Your task to perform on an android device: uninstall "Pluto TV - Live TV and Movies" Image 0: 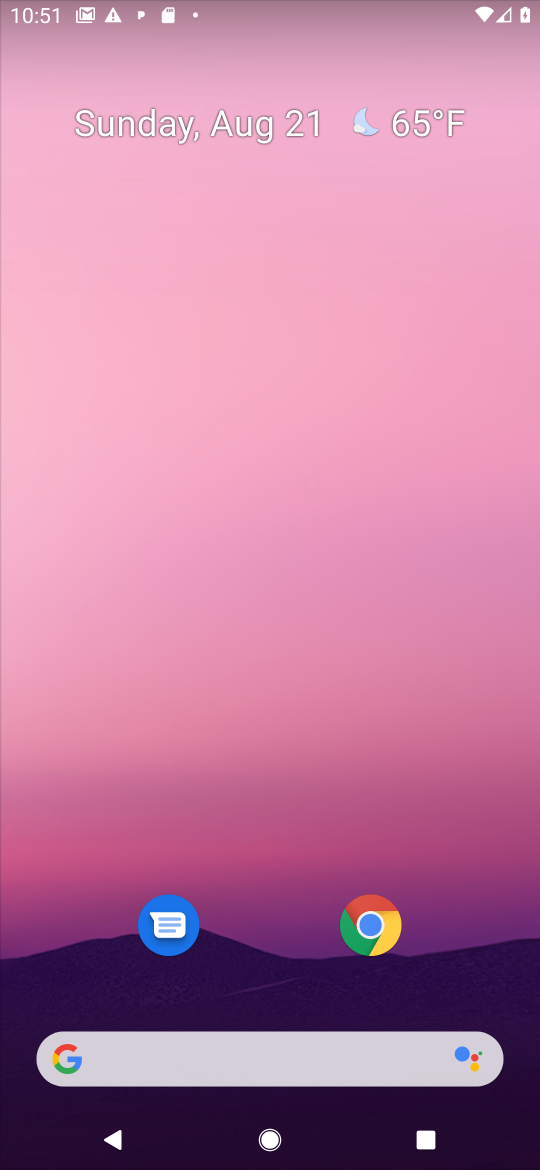
Step 0: drag from (321, 865) to (464, 174)
Your task to perform on an android device: uninstall "Pluto TV - Live TV and Movies" Image 1: 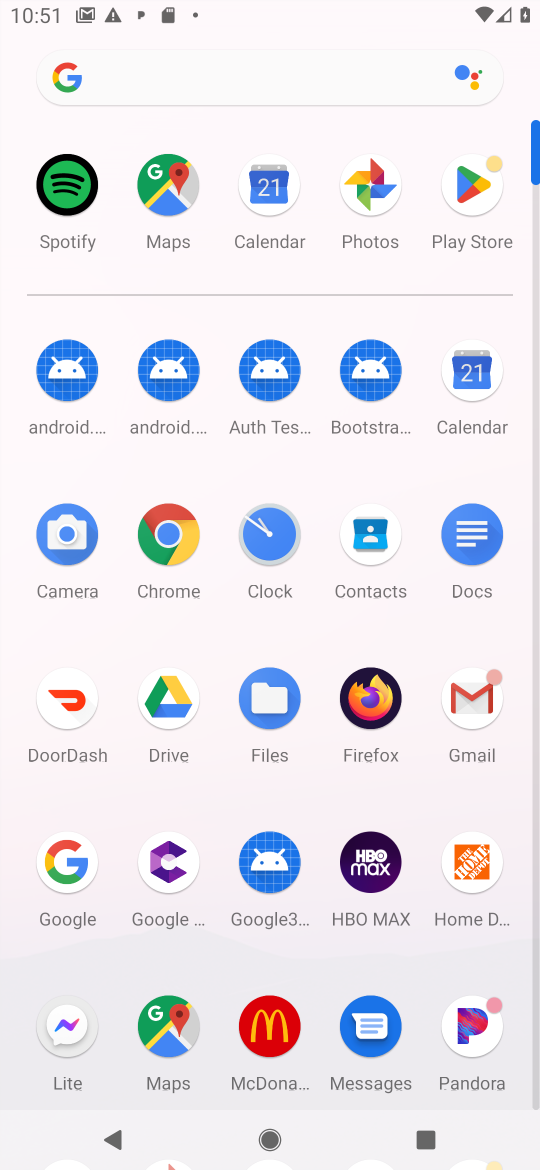
Step 1: click (463, 175)
Your task to perform on an android device: uninstall "Pluto TV - Live TV and Movies" Image 2: 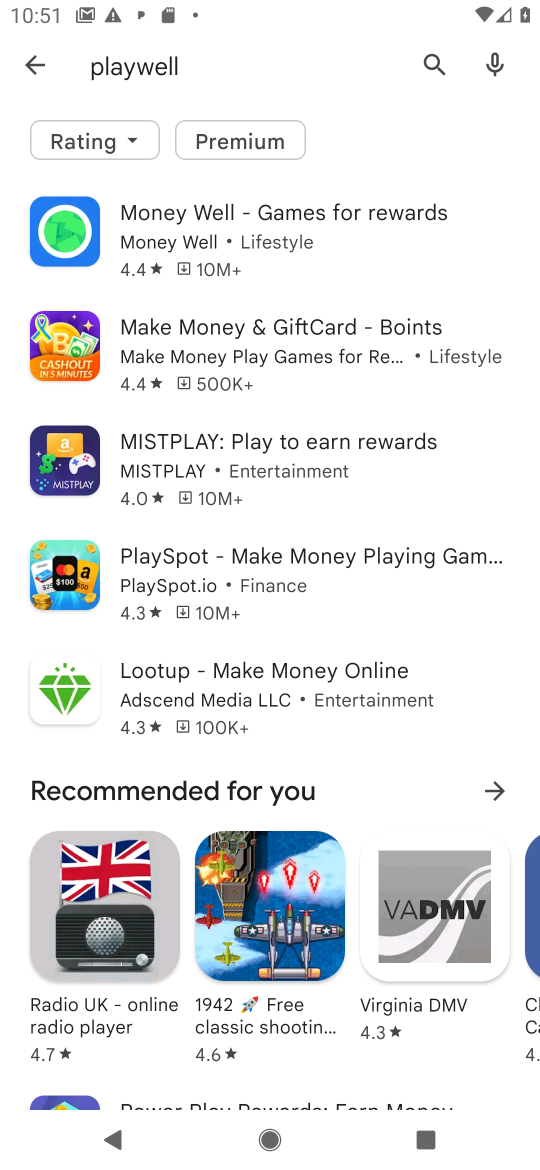
Step 2: click (444, 41)
Your task to perform on an android device: uninstall "Pluto TV - Live TV and Movies" Image 3: 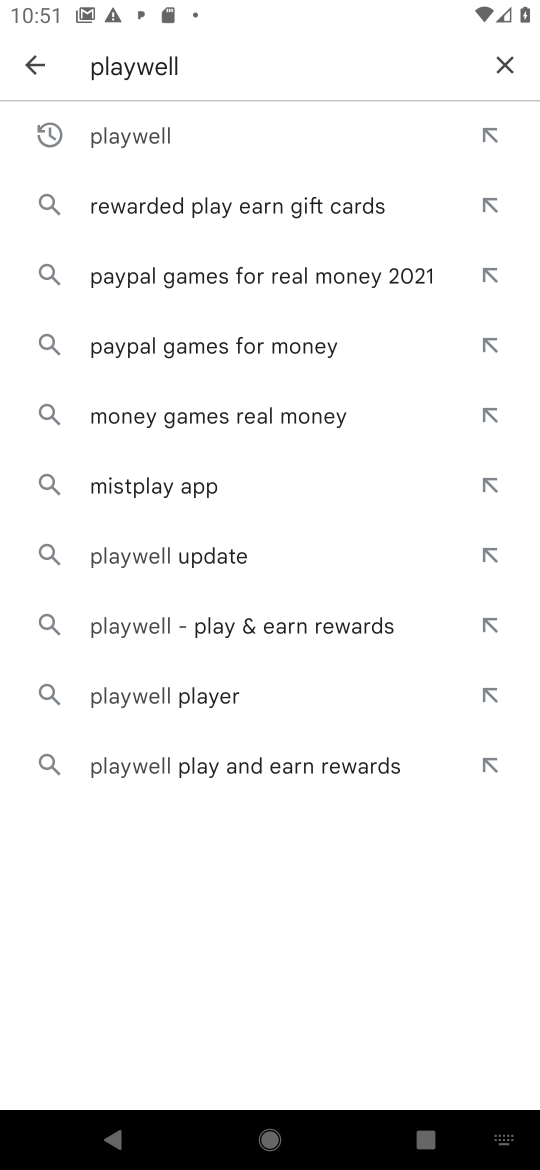
Step 3: click (492, 70)
Your task to perform on an android device: uninstall "Pluto TV - Live TV and Movies" Image 4: 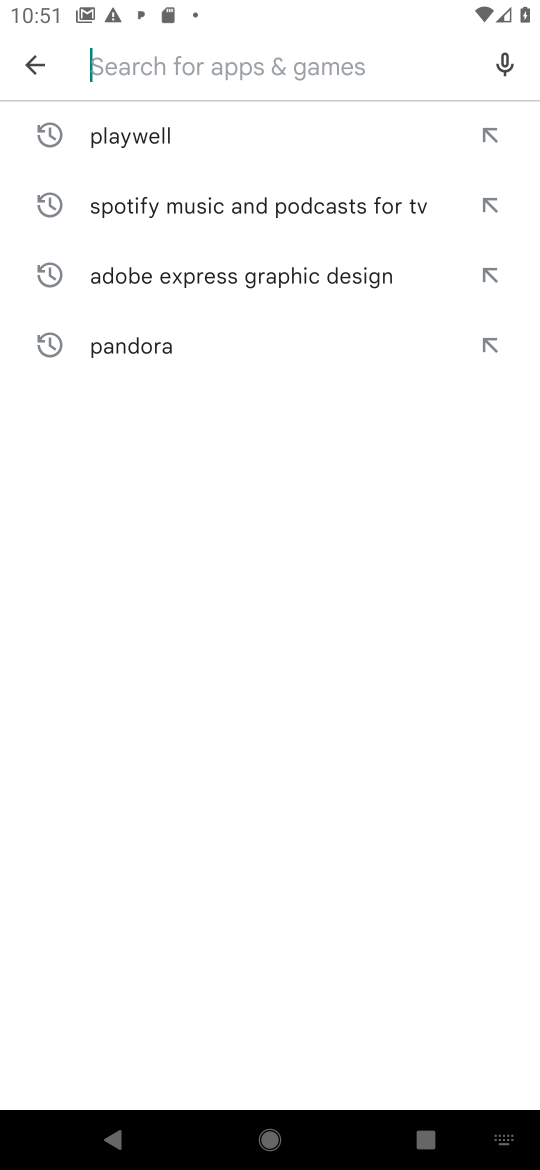
Step 4: click (247, 68)
Your task to perform on an android device: uninstall "Pluto TV - Live TV and Movies" Image 5: 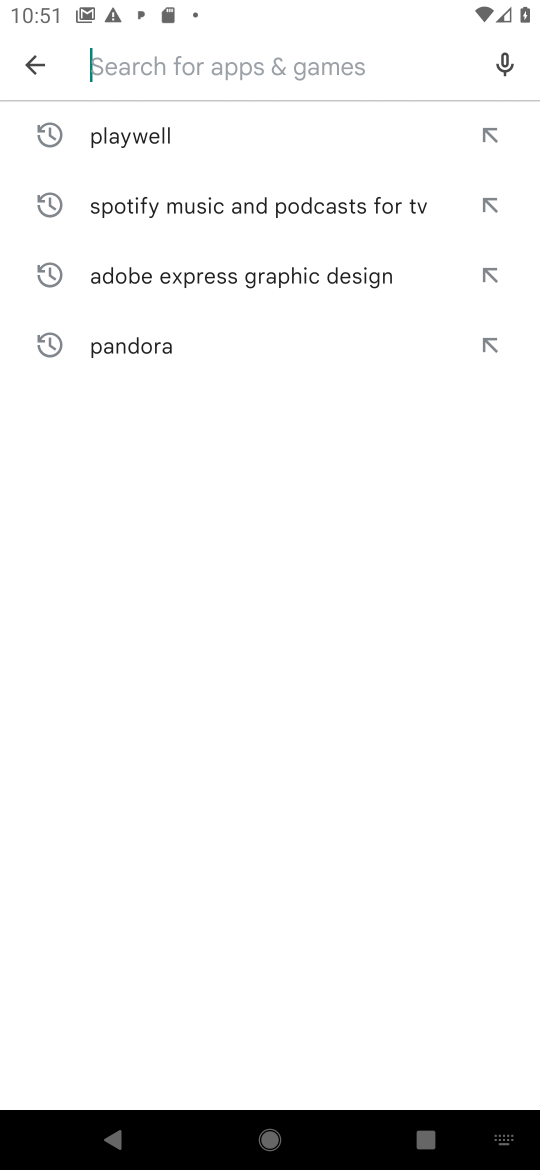
Step 5: type "plutotv"
Your task to perform on an android device: uninstall "Pluto TV - Live TV and Movies" Image 6: 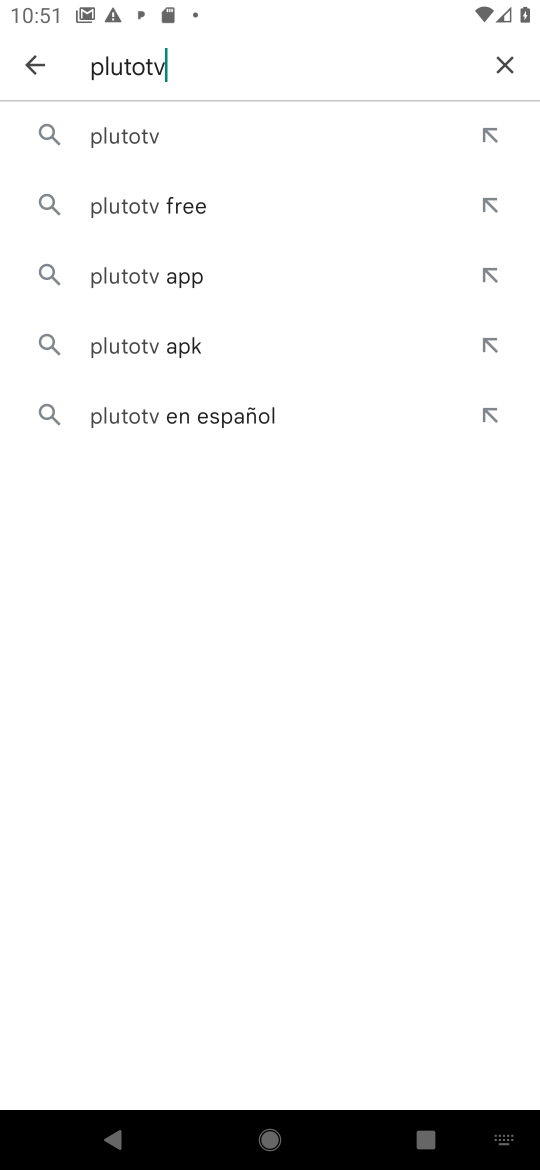
Step 6: click (129, 138)
Your task to perform on an android device: uninstall "Pluto TV - Live TV and Movies" Image 7: 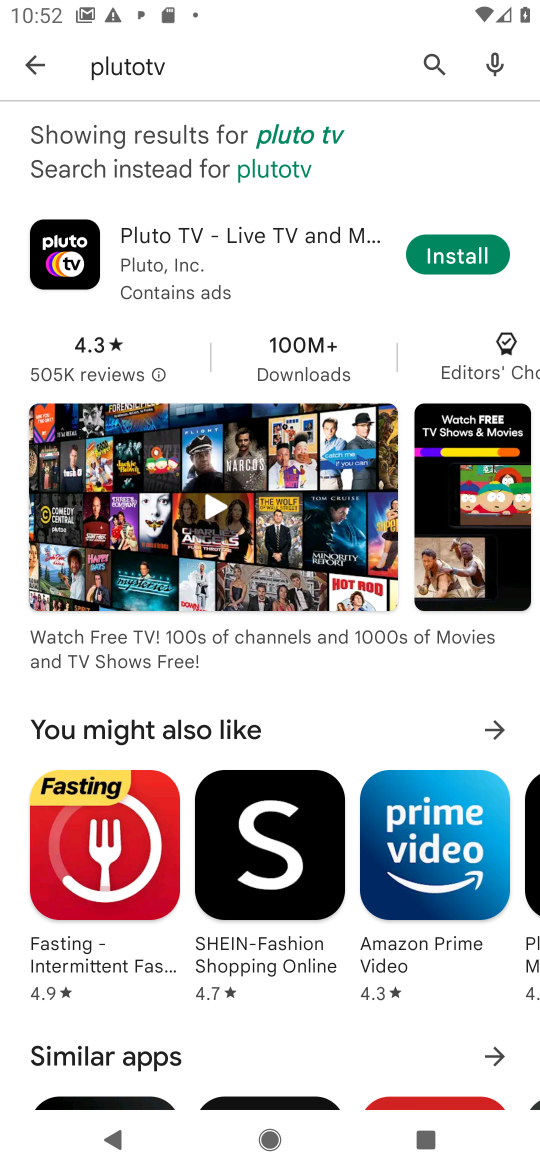
Step 7: task complete